Your task to perform on an android device: Open the stopwatch Image 0: 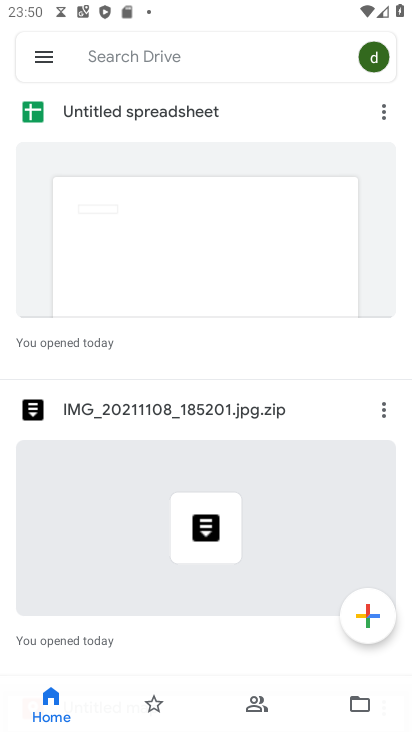
Step 0: press home button
Your task to perform on an android device: Open the stopwatch Image 1: 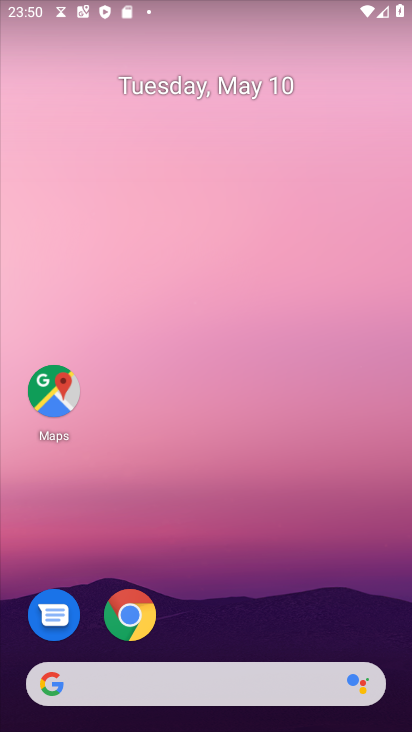
Step 1: drag from (260, 545) to (214, 107)
Your task to perform on an android device: Open the stopwatch Image 2: 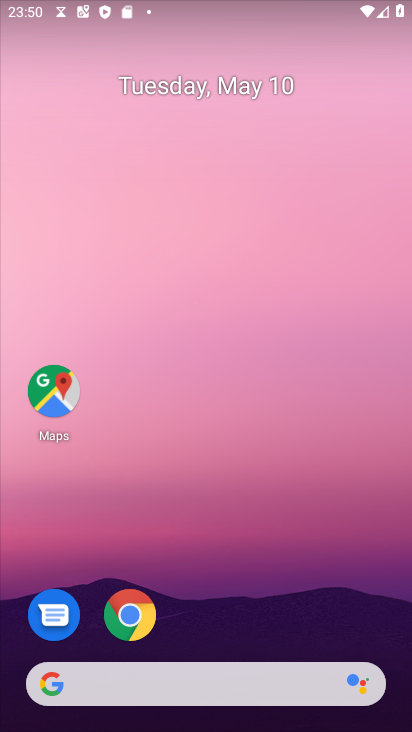
Step 2: drag from (231, 549) to (230, 14)
Your task to perform on an android device: Open the stopwatch Image 3: 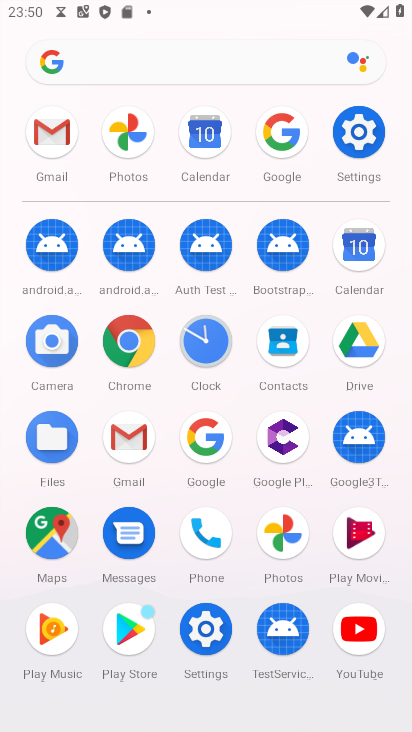
Step 3: click (205, 341)
Your task to perform on an android device: Open the stopwatch Image 4: 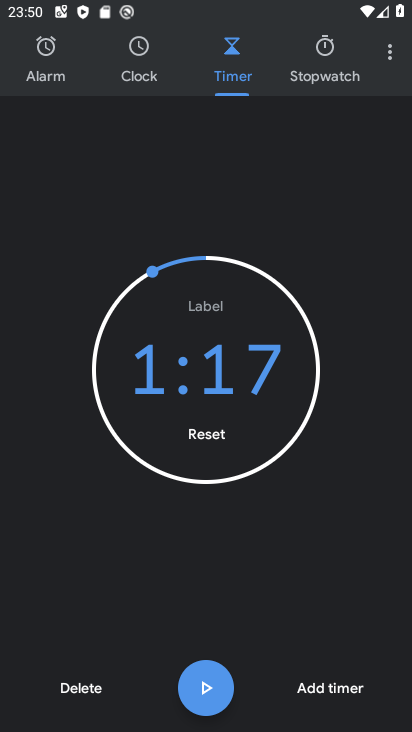
Step 4: click (328, 56)
Your task to perform on an android device: Open the stopwatch Image 5: 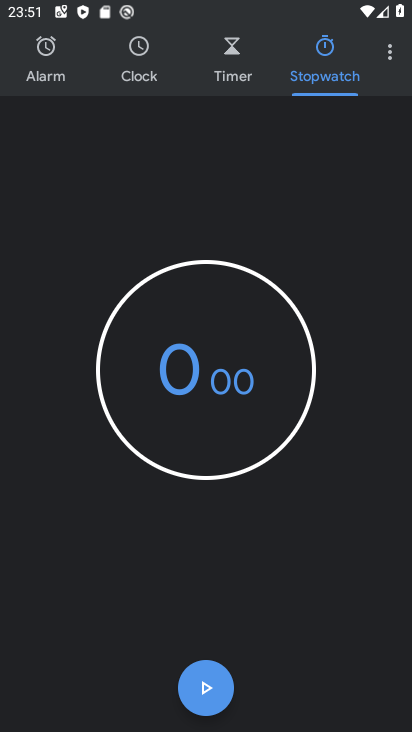
Step 5: task complete